Your task to perform on an android device: Open internet settings Image 0: 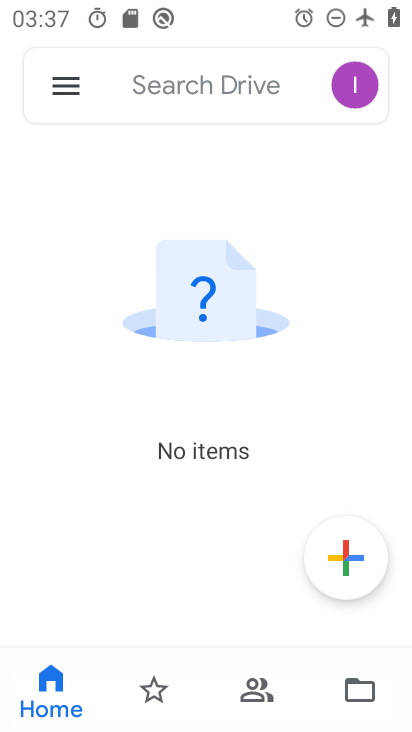
Step 0: press home button
Your task to perform on an android device: Open internet settings Image 1: 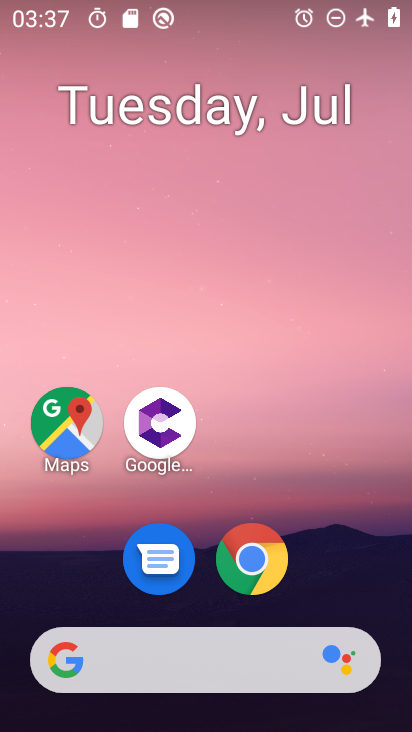
Step 1: drag from (354, 571) to (411, 313)
Your task to perform on an android device: Open internet settings Image 2: 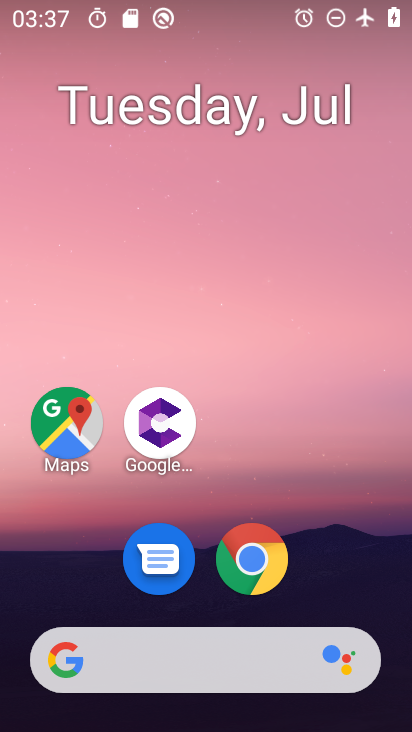
Step 2: drag from (371, 563) to (407, 65)
Your task to perform on an android device: Open internet settings Image 3: 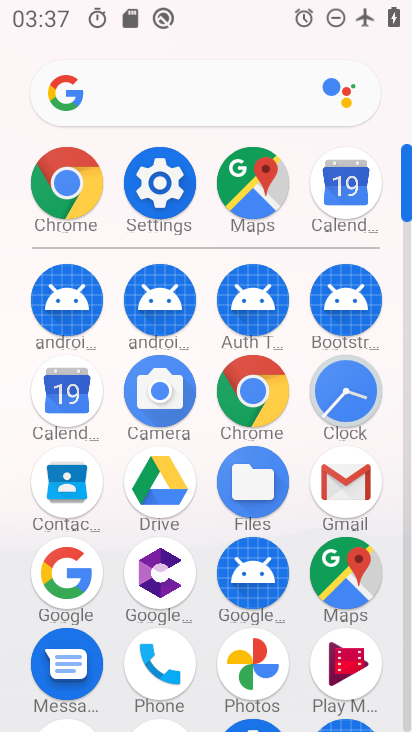
Step 3: click (172, 194)
Your task to perform on an android device: Open internet settings Image 4: 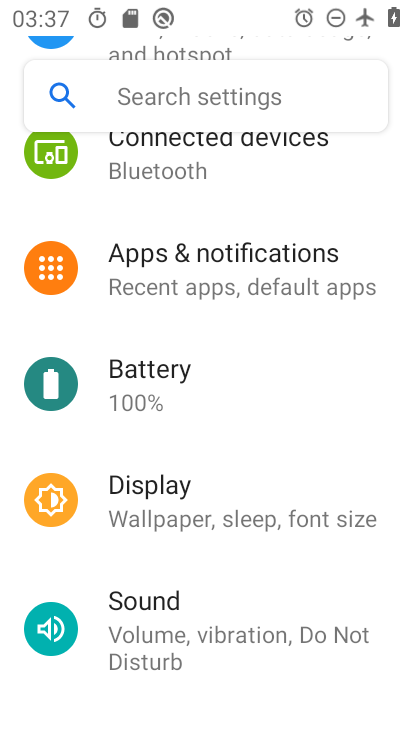
Step 4: drag from (306, 191) to (324, 344)
Your task to perform on an android device: Open internet settings Image 5: 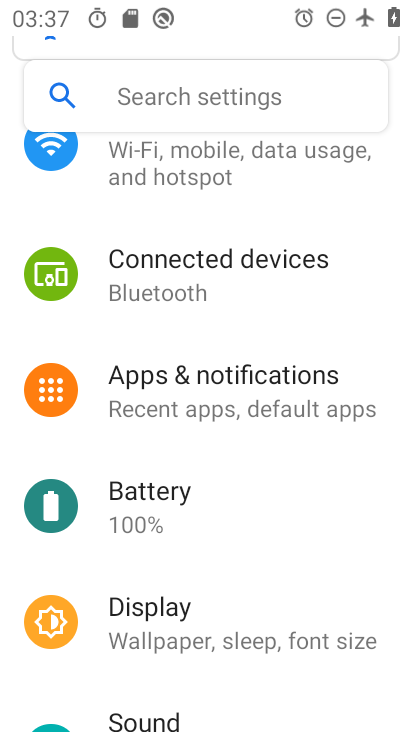
Step 5: drag from (368, 209) to (372, 329)
Your task to perform on an android device: Open internet settings Image 6: 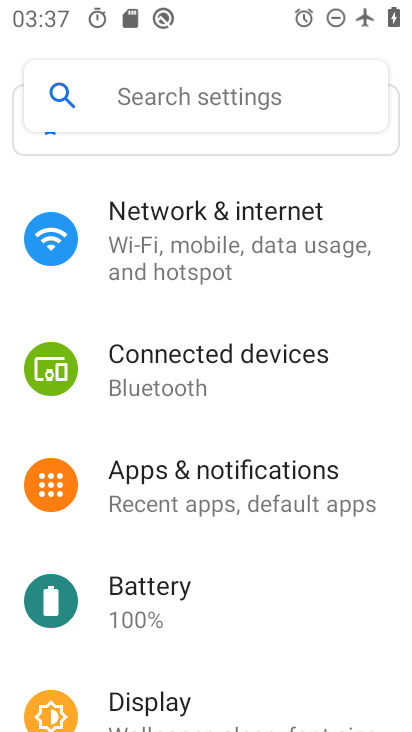
Step 6: drag from (361, 196) to (364, 375)
Your task to perform on an android device: Open internet settings Image 7: 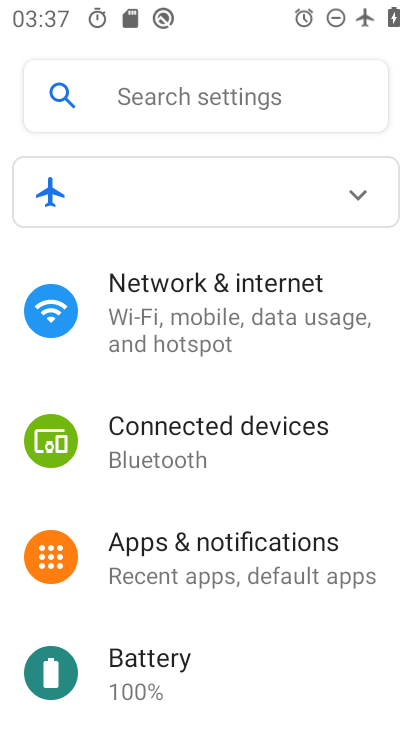
Step 7: click (327, 331)
Your task to perform on an android device: Open internet settings Image 8: 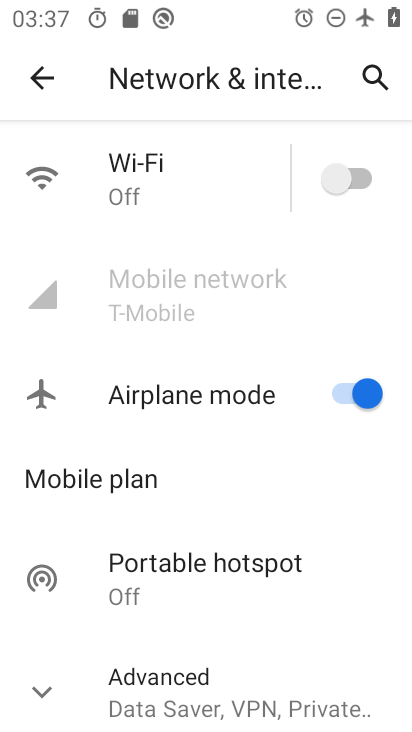
Step 8: task complete